Your task to perform on an android device: turn on wifi Image 0: 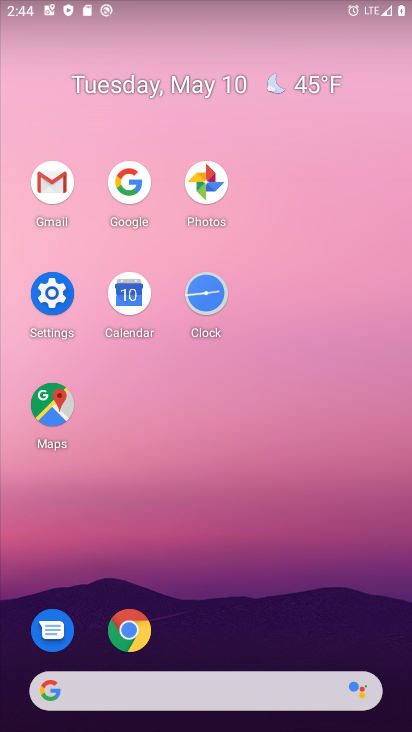
Step 0: click (59, 299)
Your task to perform on an android device: turn on wifi Image 1: 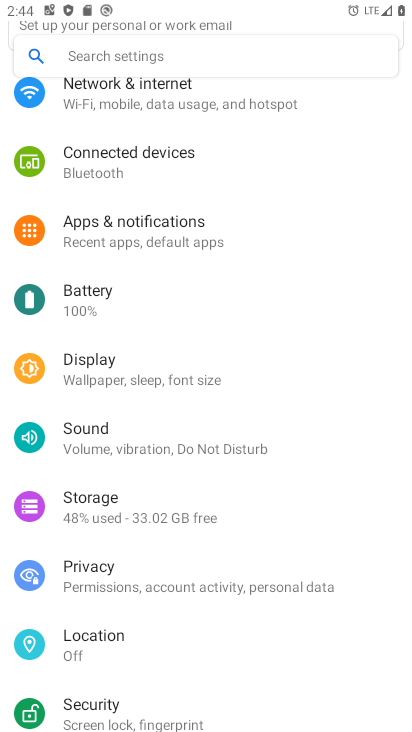
Step 1: drag from (213, 169) to (215, 519)
Your task to perform on an android device: turn on wifi Image 2: 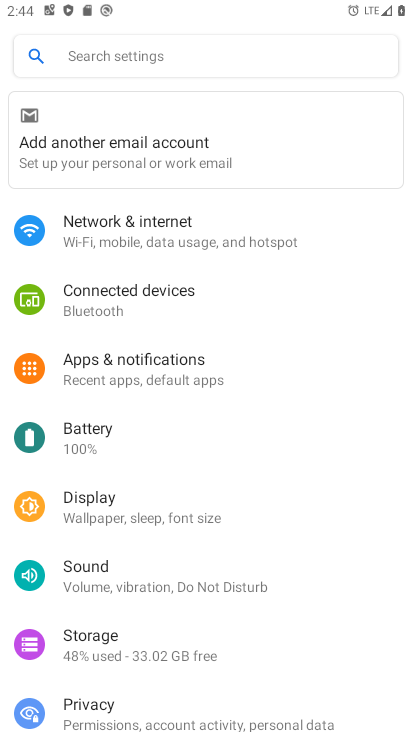
Step 2: click (172, 239)
Your task to perform on an android device: turn on wifi Image 3: 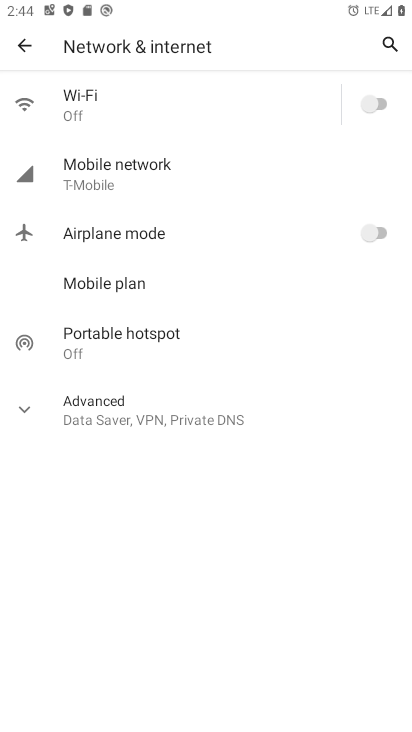
Step 3: click (369, 103)
Your task to perform on an android device: turn on wifi Image 4: 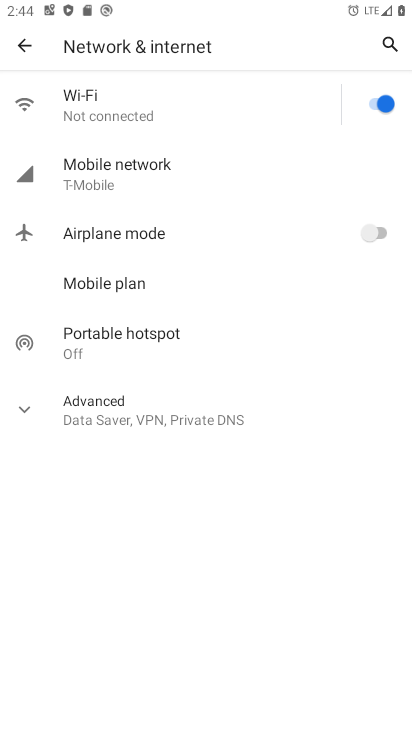
Step 4: task complete